Your task to perform on an android device: allow notifications from all sites in the chrome app Image 0: 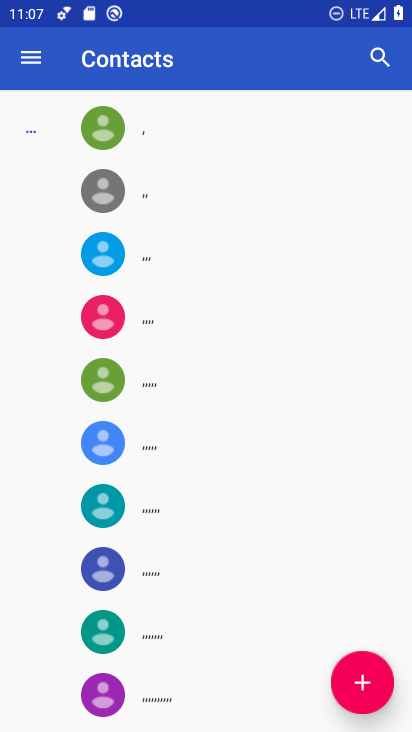
Step 0: press home button
Your task to perform on an android device: allow notifications from all sites in the chrome app Image 1: 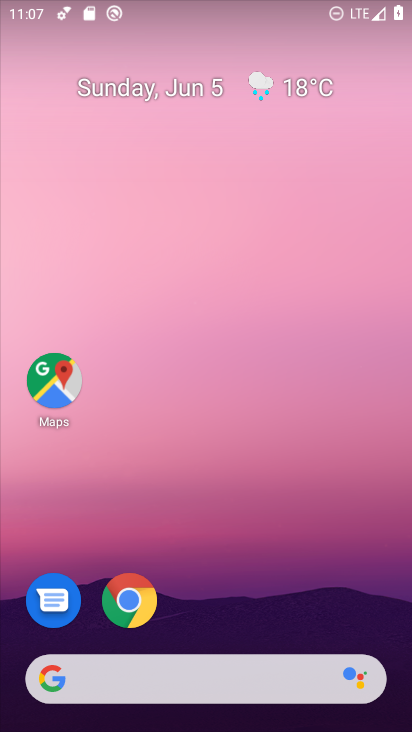
Step 1: click (131, 579)
Your task to perform on an android device: allow notifications from all sites in the chrome app Image 2: 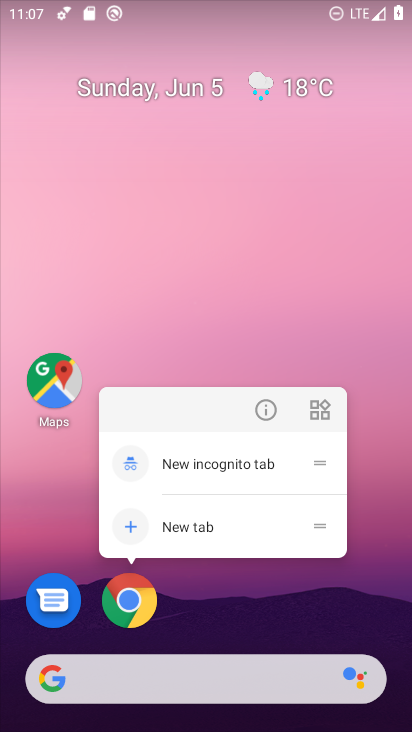
Step 2: click (131, 579)
Your task to perform on an android device: allow notifications from all sites in the chrome app Image 3: 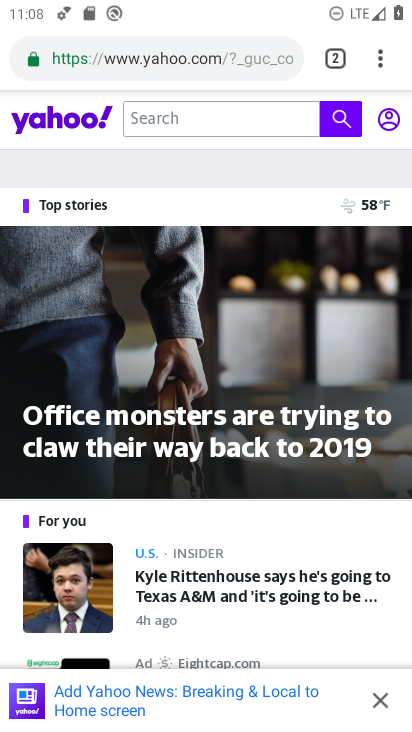
Step 3: drag from (381, 66) to (177, 630)
Your task to perform on an android device: allow notifications from all sites in the chrome app Image 4: 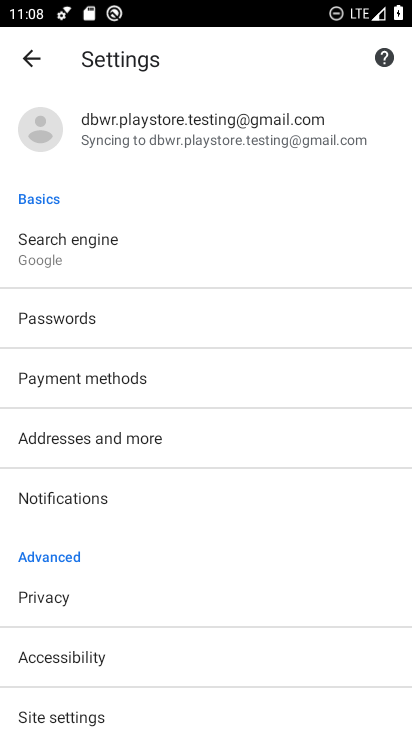
Step 4: drag from (209, 631) to (221, 385)
Your task to perform on an android device: allow notifications from all sites in the chrome app Image 5: 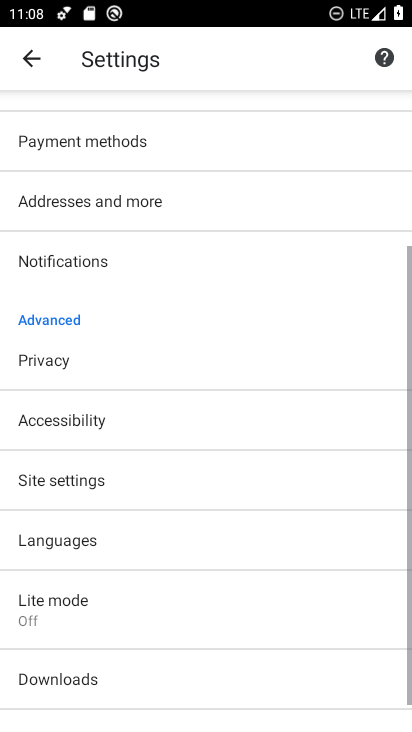
Step 5: click (116, 240)
Your task to perform on an android device: allow notifications from all sites in the chrome app Image 6: 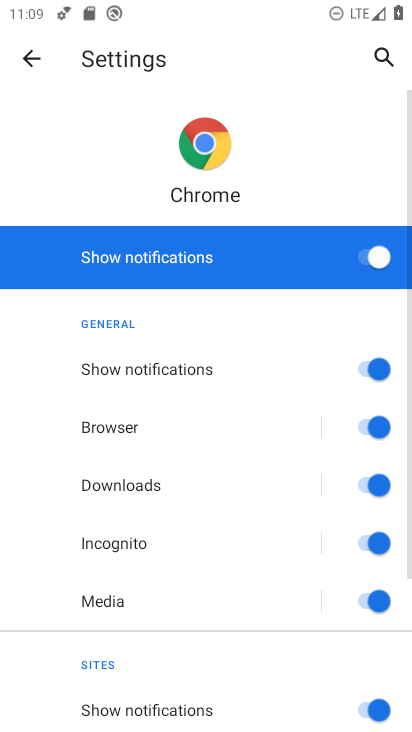
Step 6: click (28, 46)
Your task to perform on an android device: allow notifications from all sites in the chrome app Image 7: 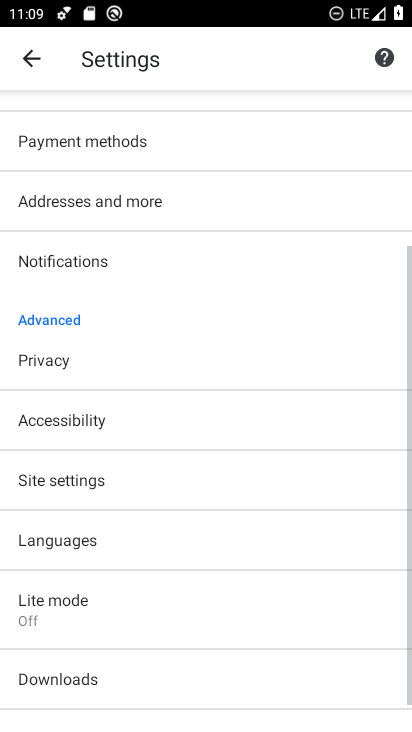
Step 7: click (91, 483)
Your task to perform on an android device: allow notifications from all sites in the chrome app Image 8: 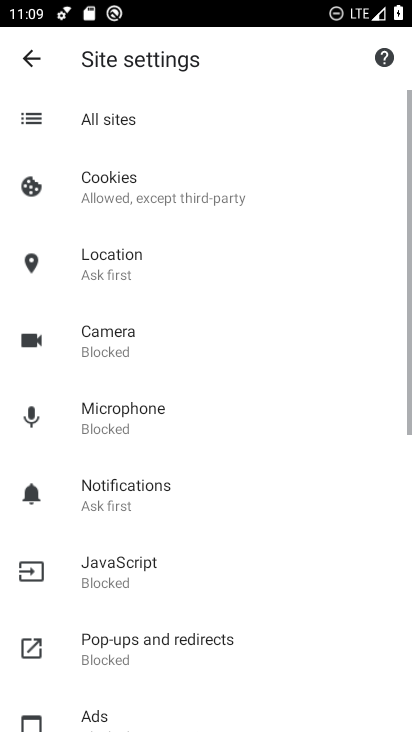
Step 8: click (132, 130)
Your task to perform on an android device: allow notifications from all sites in the chrome app Image 9: 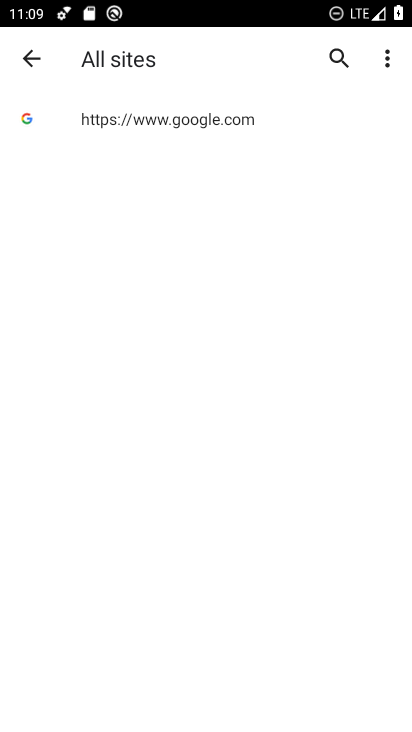
Step 9: click (177, 116)
Your task to perform on an android device: allow notifications from all sites in the chrome app Image 10: 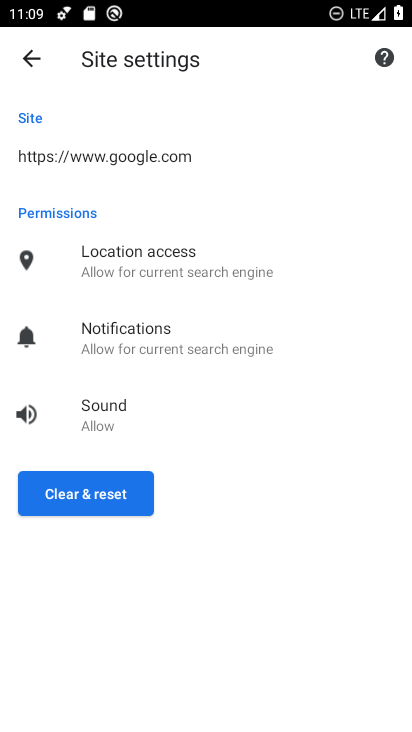
Step 10: click (158, 323)
Your task to perform on an android device: allow notifications from all sites in the chrome app Image 11: 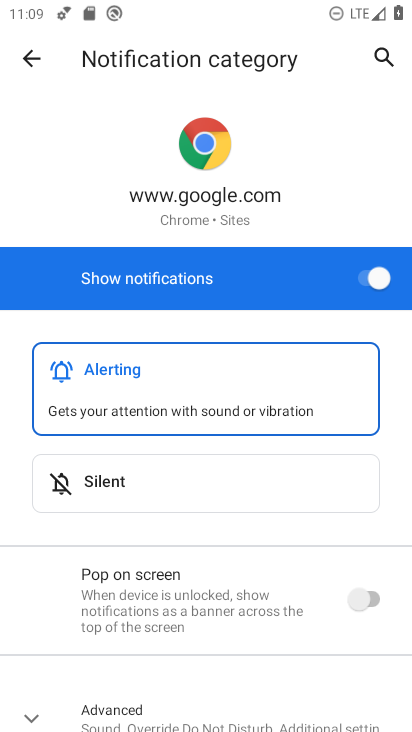
Step 11: task complete